Your task to perform on an android device: Go to calendar. Show me events next week Image 0: 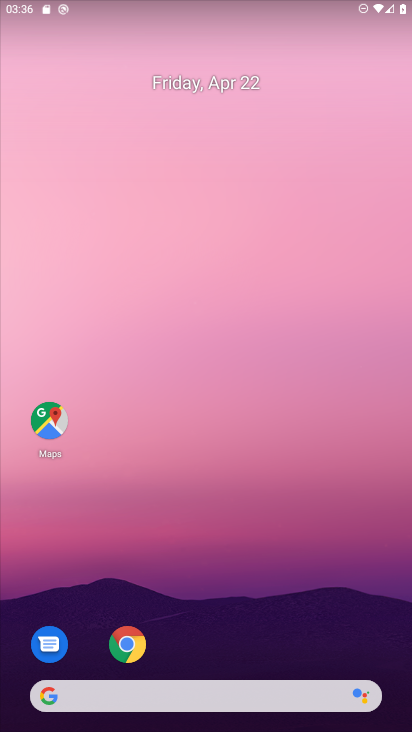
Step 0: drag from (216, 614) to (204, 93)
Your task to perform on an android device: Go to calendar. Show me events next week Image 1: 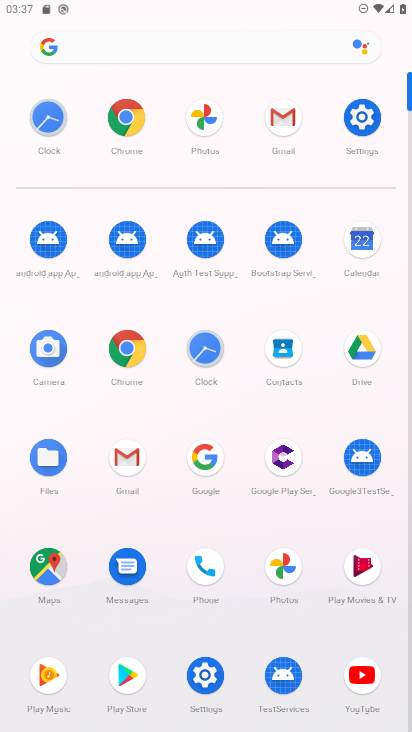
Step 1: click (355, 245)
Your task to perform on an android device: Go to calendar. Show me events next week Image 2: 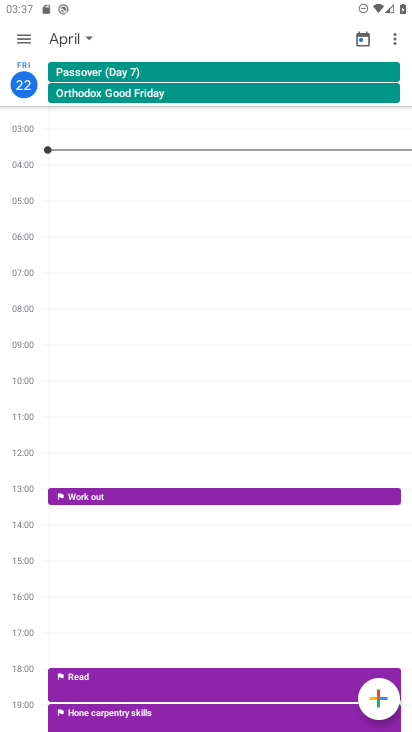
Step 2: click (64, 36)
Your task to perform on an android device: Go to calendar. Show me events next week Image 3: 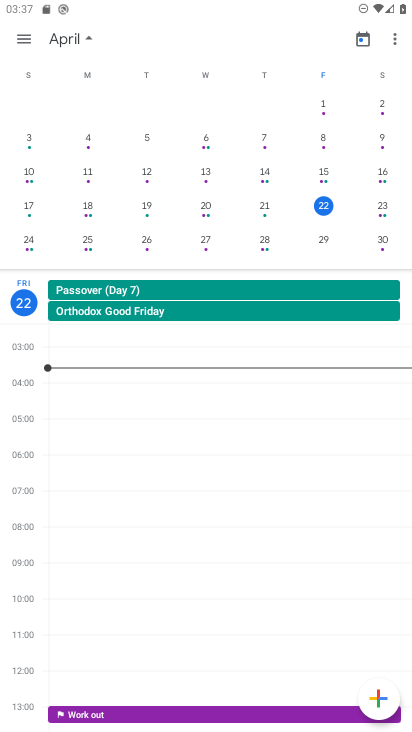
Step 3: click (317, 239)
Your task to perform on an android device: Go to calendar. Show me events next week Image 4: 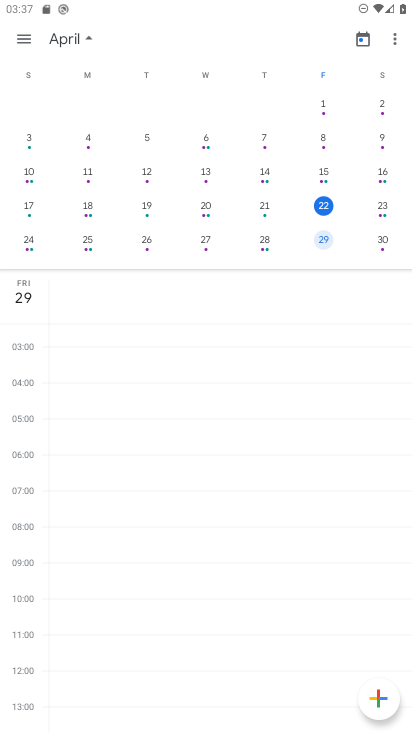
Step 4: click (316, 240)
Your task to perform on an android device: Go to calendar. Show me events next week Image 5: 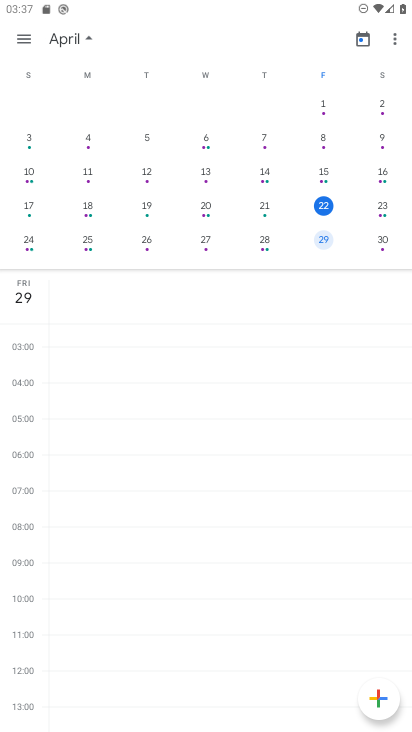
Step 5: click (270, 242)
Your task to perform on an android device: Go to calendar. Show me events next week Image 6: 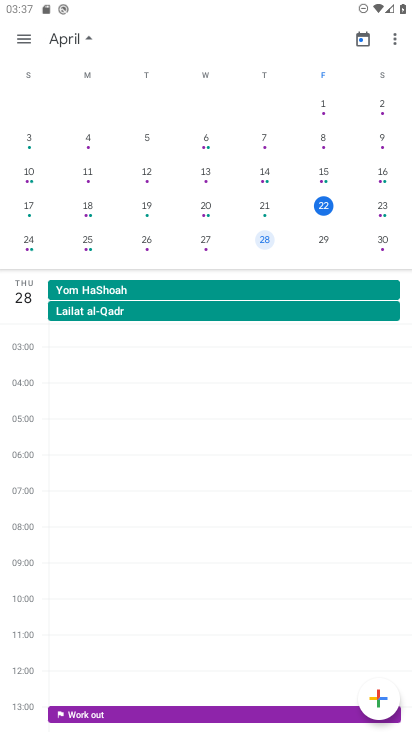
Step 6: task complete